Your task to perform on an android device: What time is it in Moscow? Image 0: 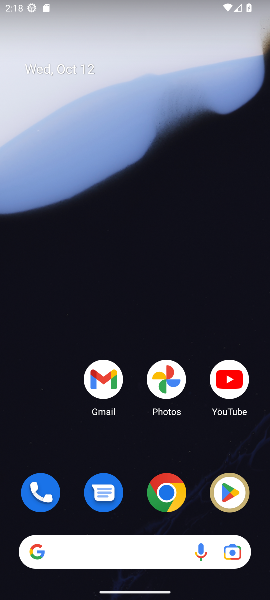
Step 0: click (163, 495)
Your task to perform on an android device: What time is it in Moscow? Image 1: 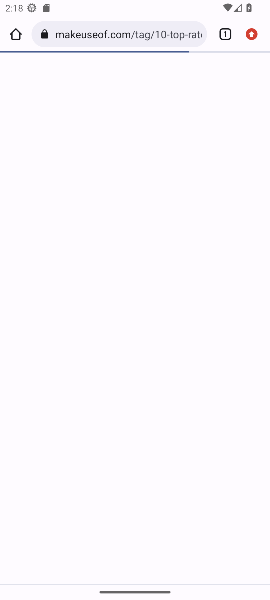
Step 1: click (91, 35)
Your task to perform on an android device: What time is it in Moscow? Image 2: 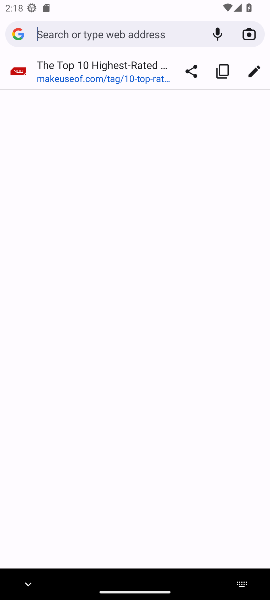
Step 2: type "time in moscow"
Your task to perform on an android device: What time is it in Moscow? Image 3: 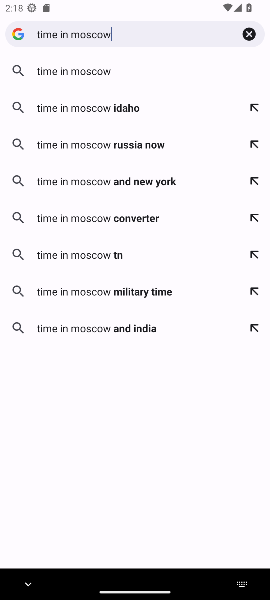
Step 3: click (84, 77)
Your task to perform on an android device: What time is it in Moscow? Image 4: 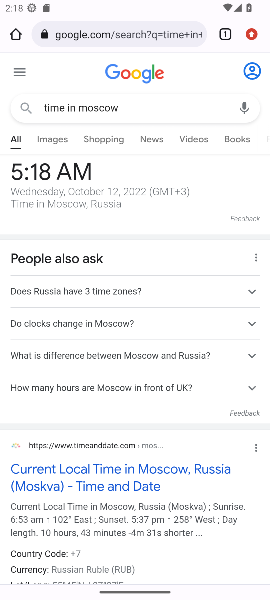
Step 4: task complete